Your task to perform on an android device: allow cookies in the chrome app Image 0: 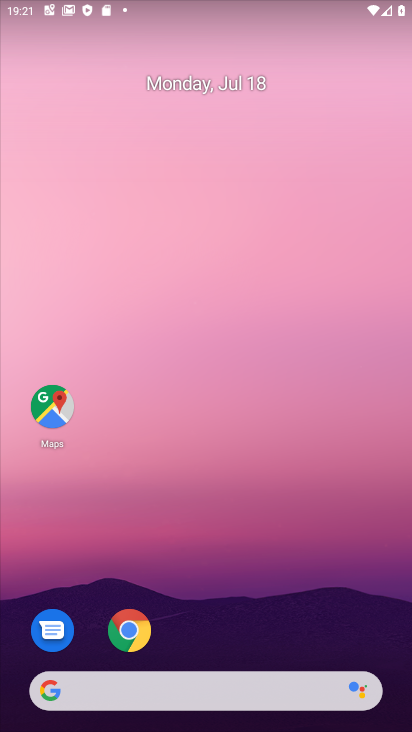
Step 0: drag from (230, 512) to (2, 25)
Your task to perform on an android device: allow cookies in the chrome app Image 1: 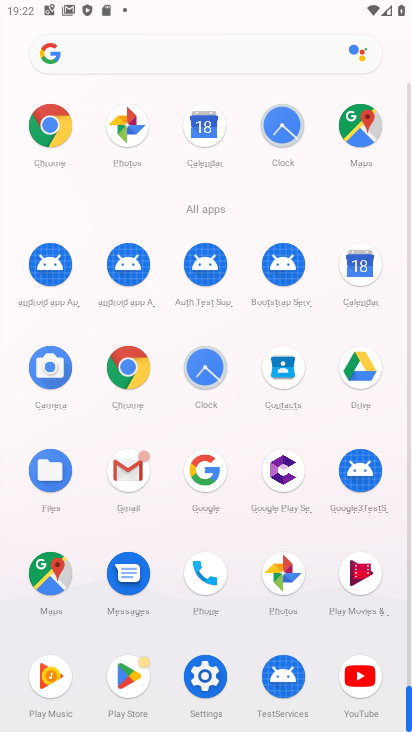
Step 1: click (144, 371)
Your task to perform on an android device: allow cookies in the chrome app Image 2: 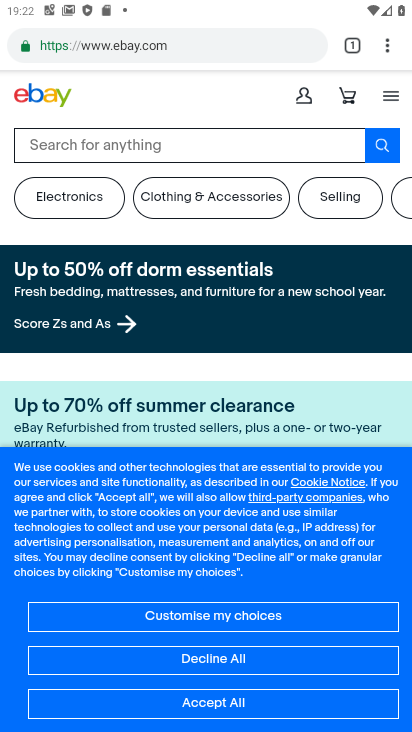
Step 2: drag from (387, 47) to (209, 556)
Your task to perform on an android device: allow cookies in the chrome app Image 3: 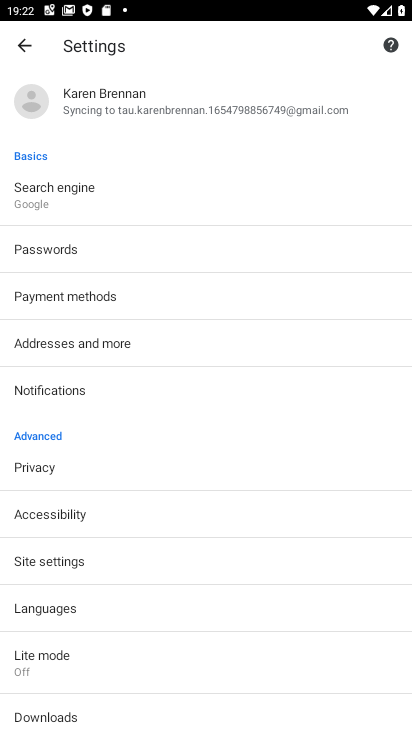
Step 3: drag from (162, 630) to (177, 192)
Your task to perform on an android device: allow cookies in the chrome app Image 4: 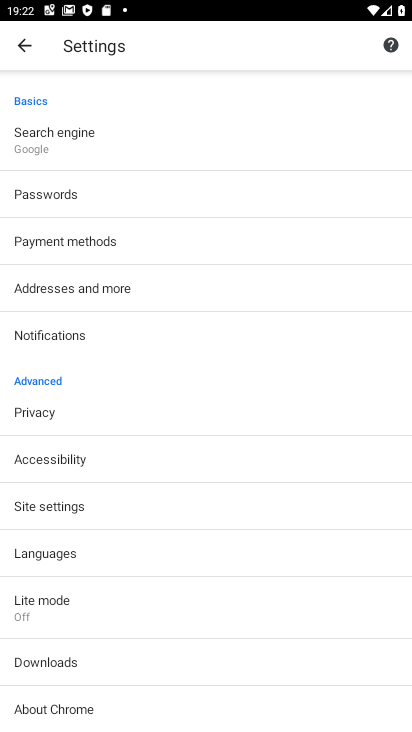
Step 4: click (65, 516)
Your task to perform on an android device: allow cookies in the chrome app Image 5: 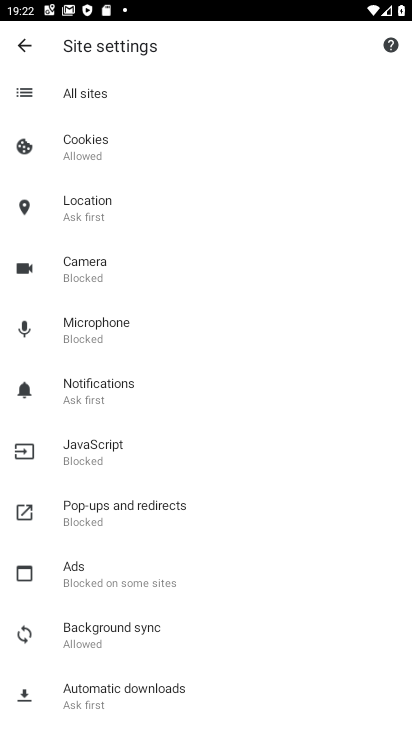
Step 5: click (85, 135)
Your task to perform on an android device: allow cookies in the chrome app Image 6: 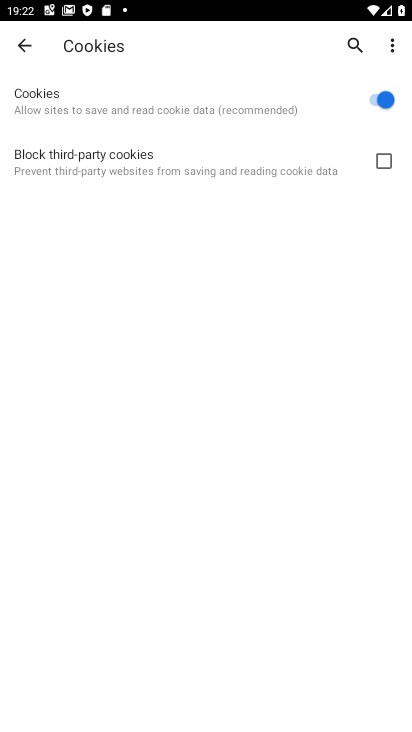
Step 6: task complete